Your task to perform on an android device: Go to battery settings Image 0: 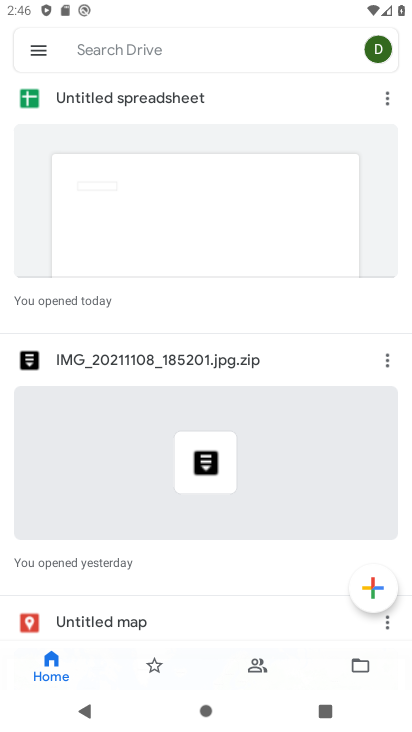
Step 0: press home button
Your task to perform on an android device: Go to battery settings Image 1: 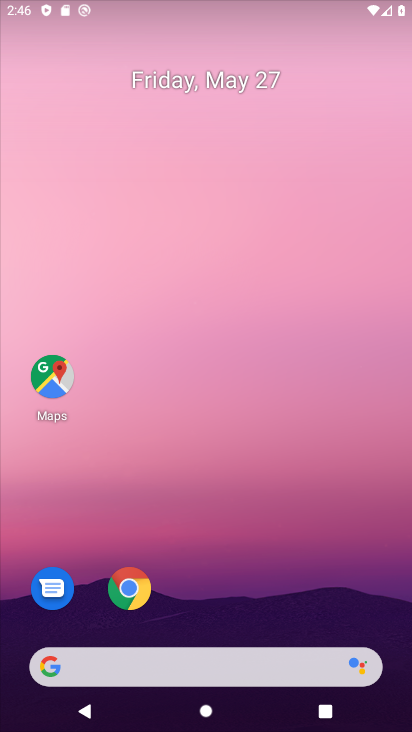
Step 1: drag from (208, 603) to (198, 150)
Your task to perform on an android device: Go to battery settings Image 2: 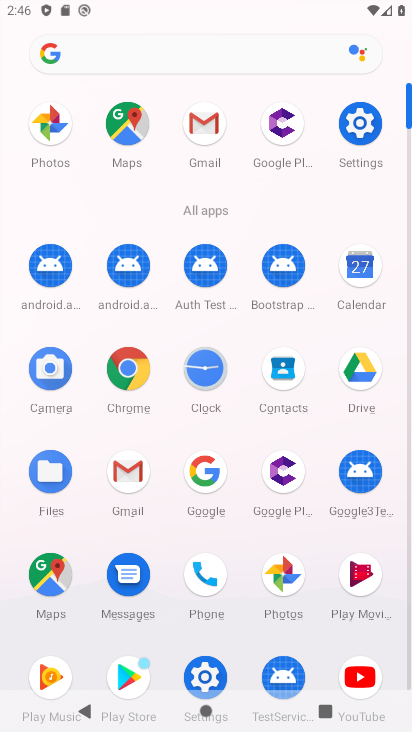
Step 2: click (202, 671)
Your task to perform on an android device: Go to battery settings Image 3: 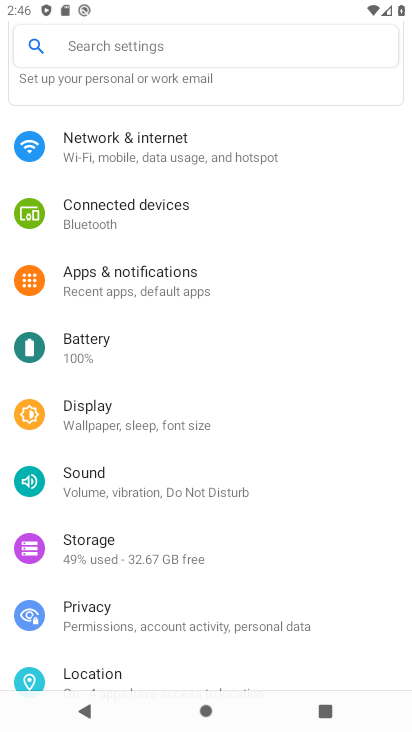
Step 3: click (79, 362)
Your task to perform on an android device: Go to battery settings Image 4: 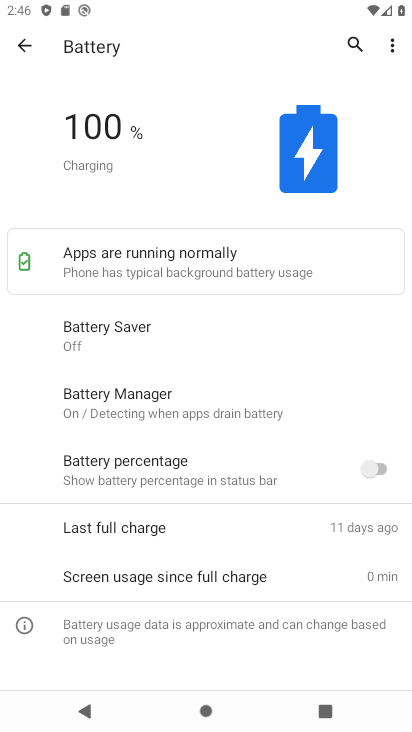
Step 4: click (389, 53)
Your task to perform on an android device: Go to battery settings Image 5: 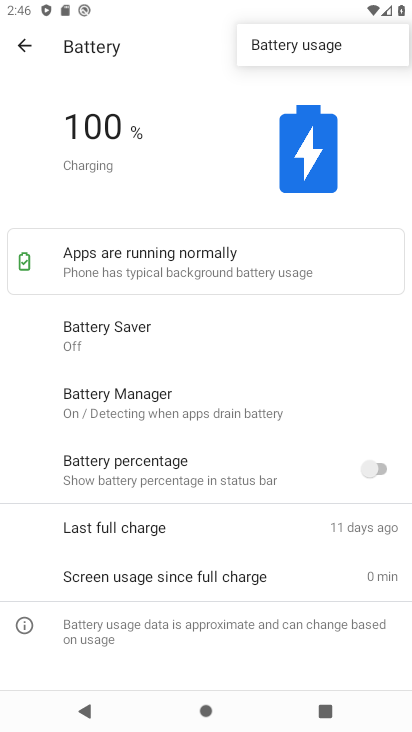
Step 5: click (349, 222)
Your task to perform on an android device: Go to battery settings Image 6: 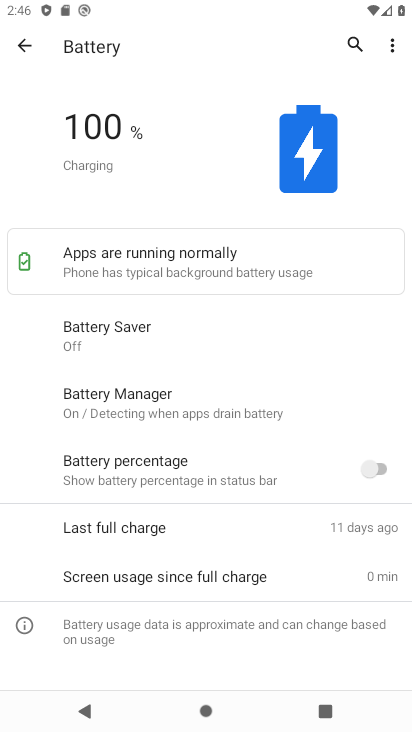
Step 6: task complete